Your task to perform on an android device: check google app version Image 0: 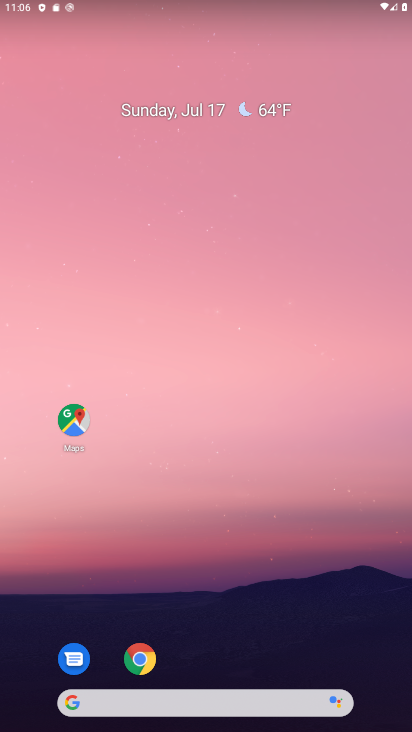
Step 0: drag from (263, 537) to (221, 277)
Your task to perform on an android device: check google app version Image 1: 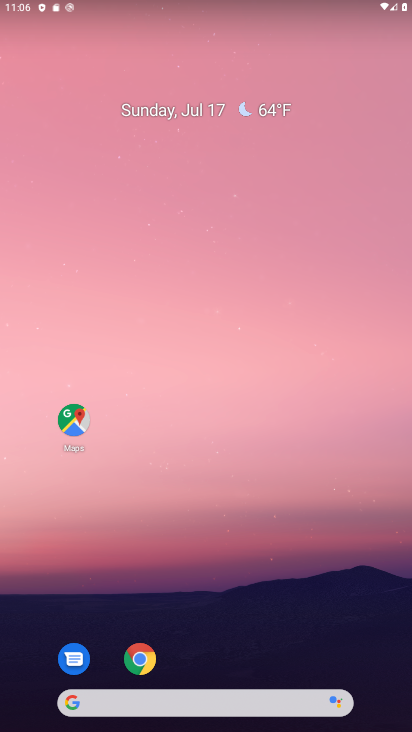
Step 1: drag from (244, 570) to (211, 104)
Your task to perform on an android device: check google app version Image 2: 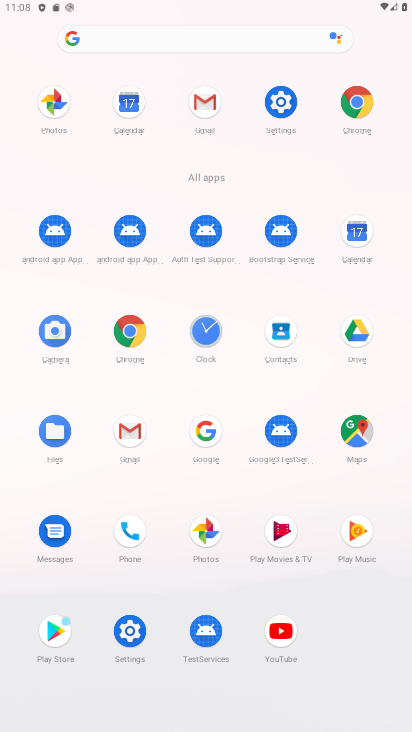
Step 2: click (211, 440)
Your task to perform on an android device: check google app version Image 3: 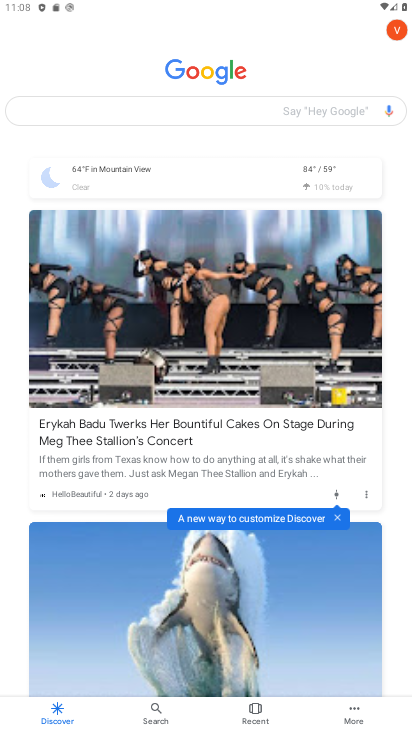
Step 3: click (398, 29)
Your task to perform on an android device: check google app version Image 4: 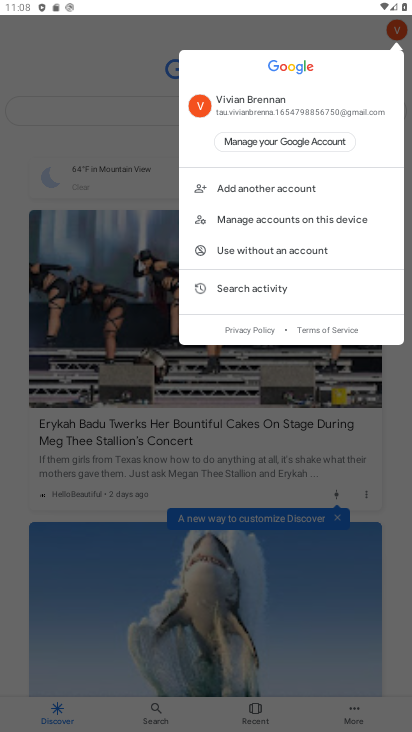
Step 4: click (42, 74)
Your task to perform on an android device: check google app version Image 5: 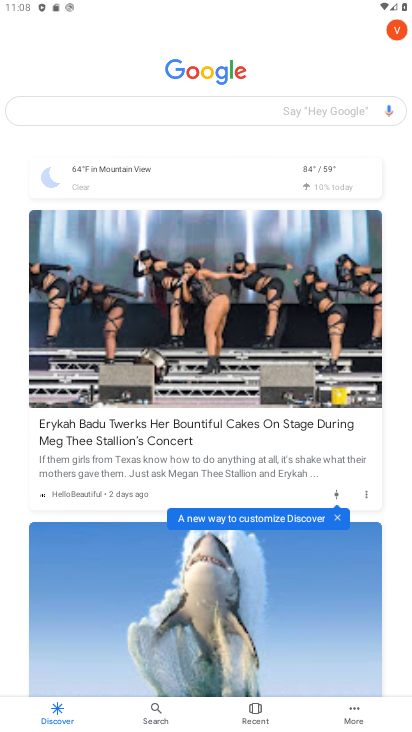
Step 5: click (358, 709)
Your task to perform on an android device: check google app version Image 6: 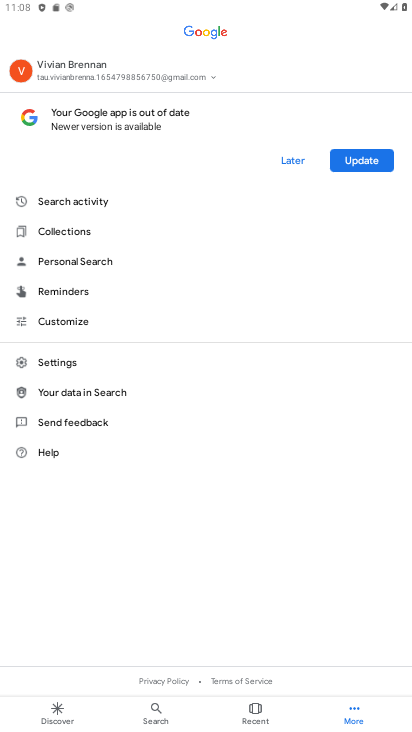
Step 6: task complete